Your task to perform on an android device: Open privacy settings Image 0: 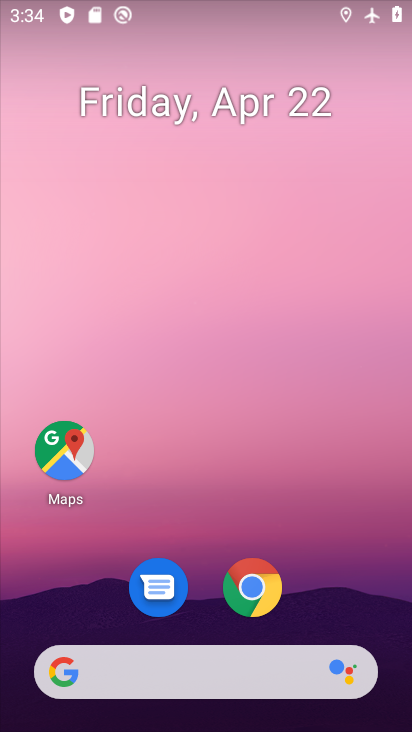
Step 0: drag from (209, 541) to (281, 0)
Your task to perform on an android device: Open privacy settings Image 1: 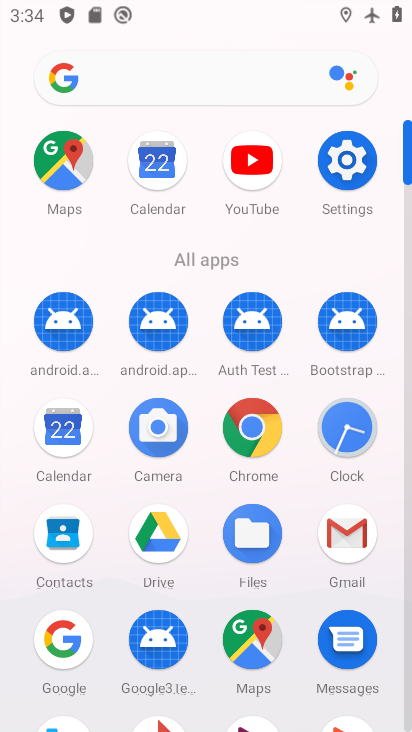
Step 1: click (344, 160)
Your task to perform on an android device: Open privacy settings Image 2: 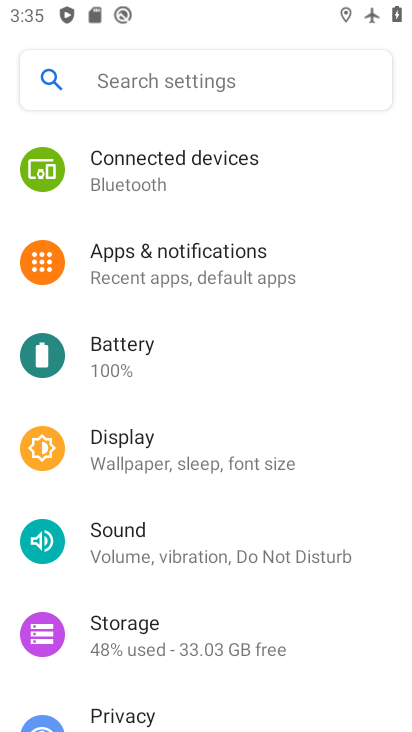
Step 2: drag from (194, 418) to (232, 267)
Your task to perform on an android device: Open privacy settings Image 3: 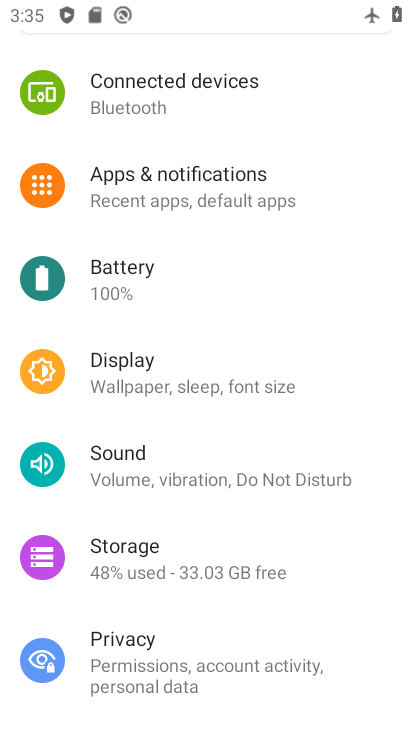
Step 3: drag from (213, 435) to (249, 304)
Your task to perform on an android device: Open privacy settings Image 4: 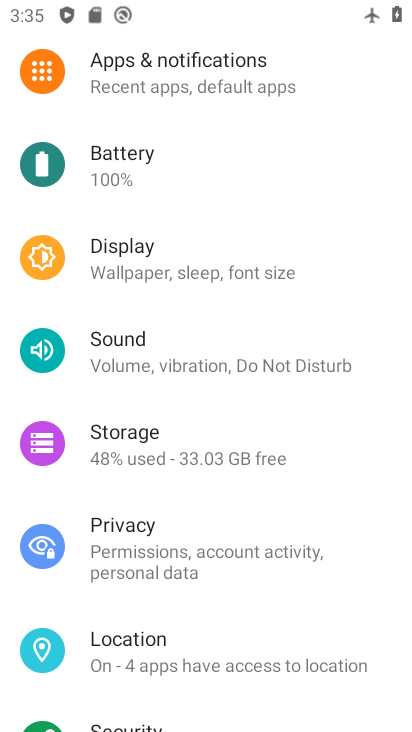
Step 4: drag from (165, 519) to (220, 357)
Your task to perform on an android device: Open privacy settings Image 5: 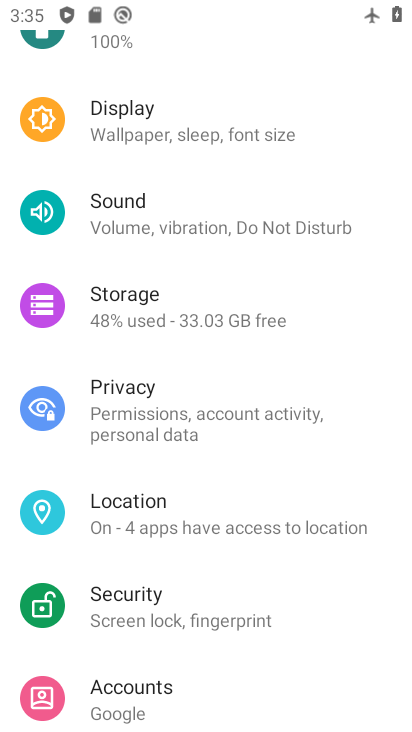
Step 5: click (128, 397)
Your task to perform on an android device: Open privacy settings Image 6: 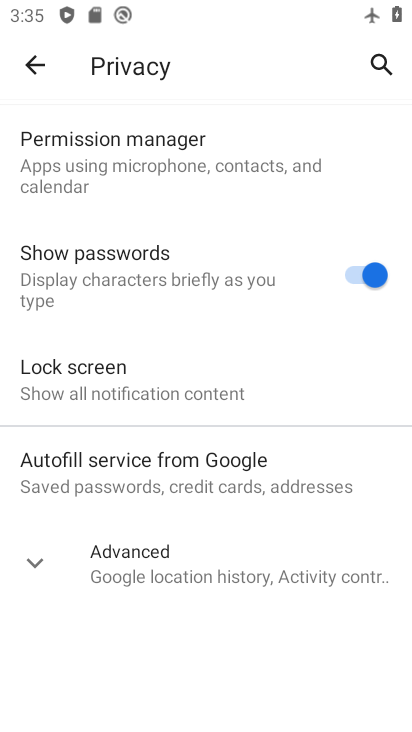
Step 6: task complete